Your task to perform on an android device: turn on the 12-hour format for clock Image 0: 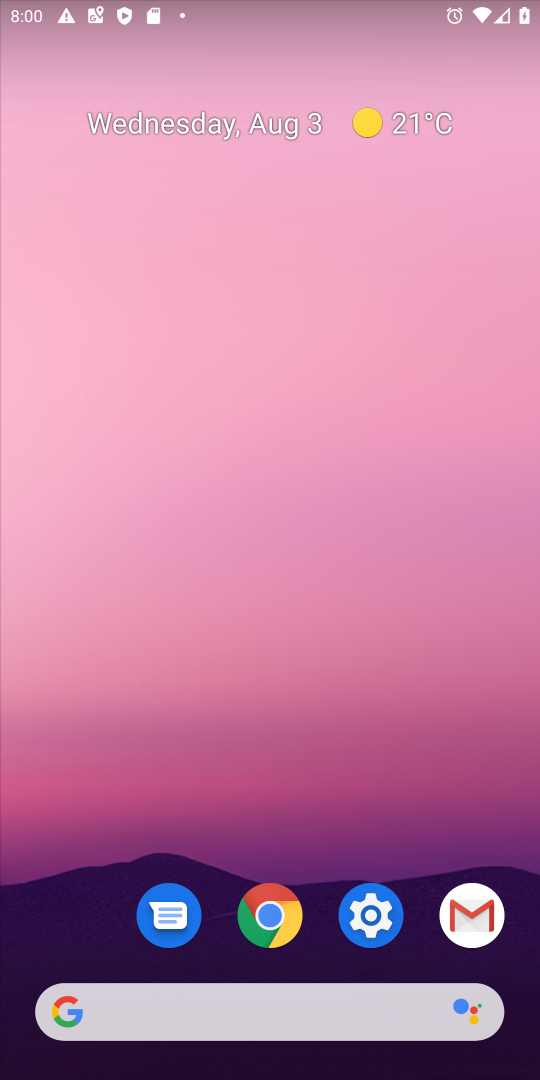
Step 0: drag from (375, 1064) to (167, 176)
Your task to perform on an android device: turn on the 12-hour format for clock Image 1: 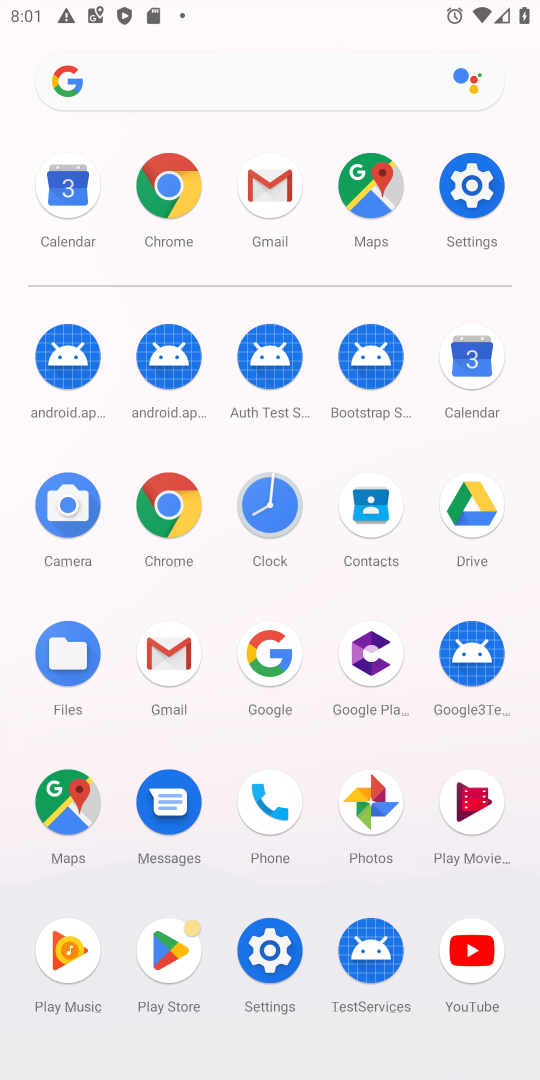
Step 1: click (296, 511)
Your task to perform on an android device: turn on the 12-hour format for clock Image 2: 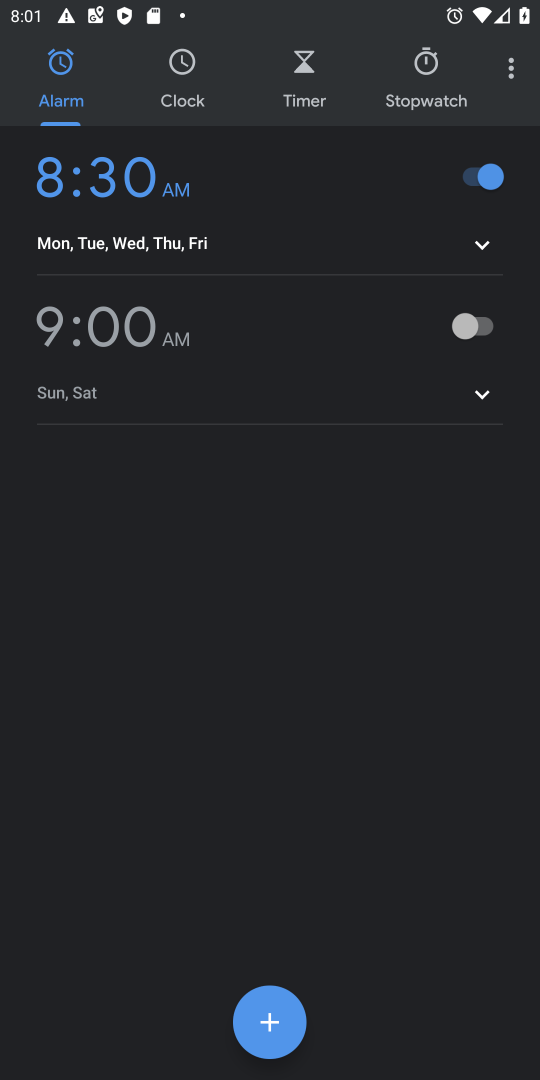
Step 2: click (505, 70)
Your task to perform on an android device: turn on the 12-hour format for clock Image 3: 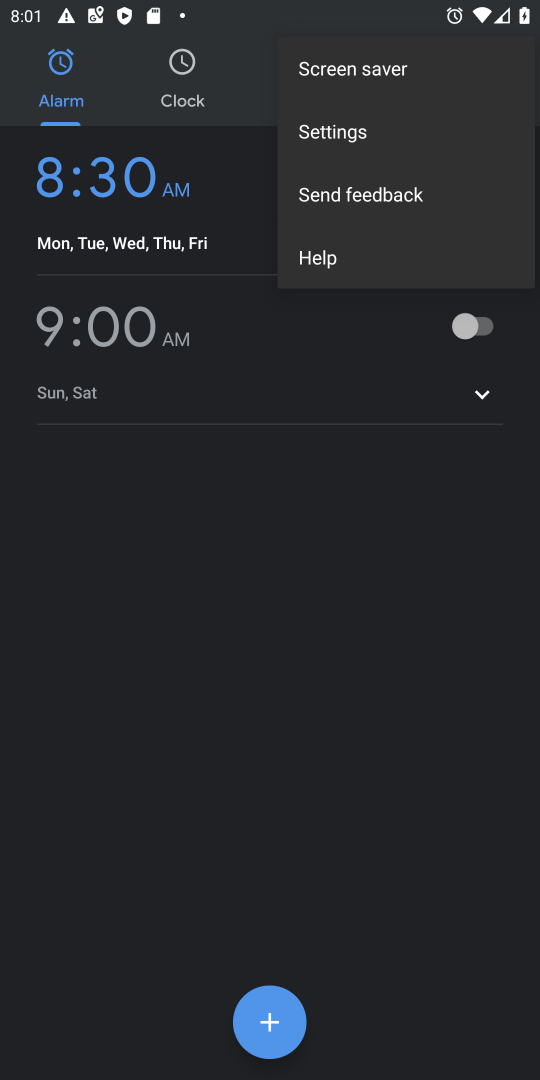
Step 3: click (352, 135)
Your task to perform on an android device: turn on the 12-hour format for clock Image 4: 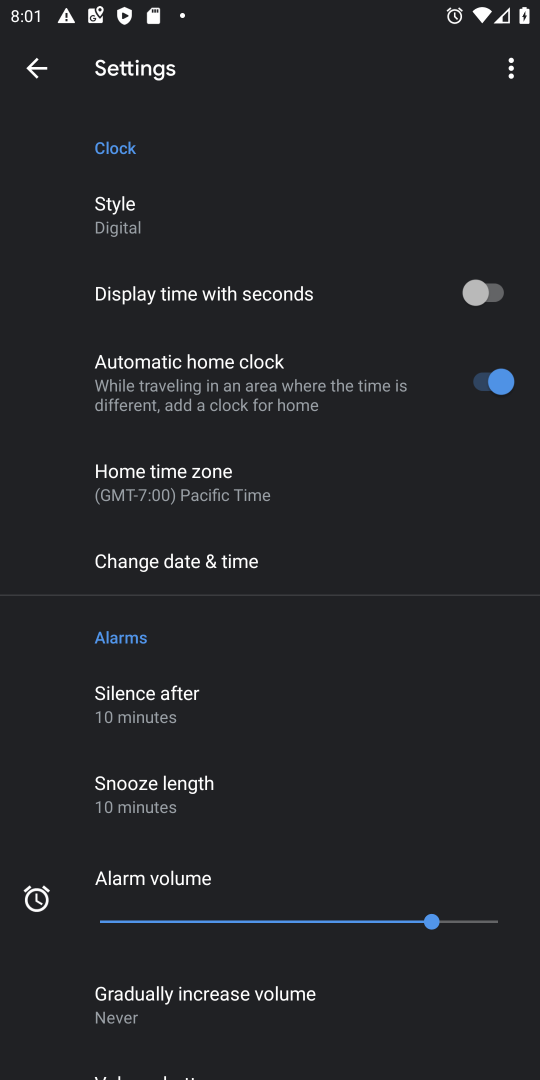
Step 4: click (162, 555)
Your task to perform on an android device: turn on the 12-hour format for clock Image 5: 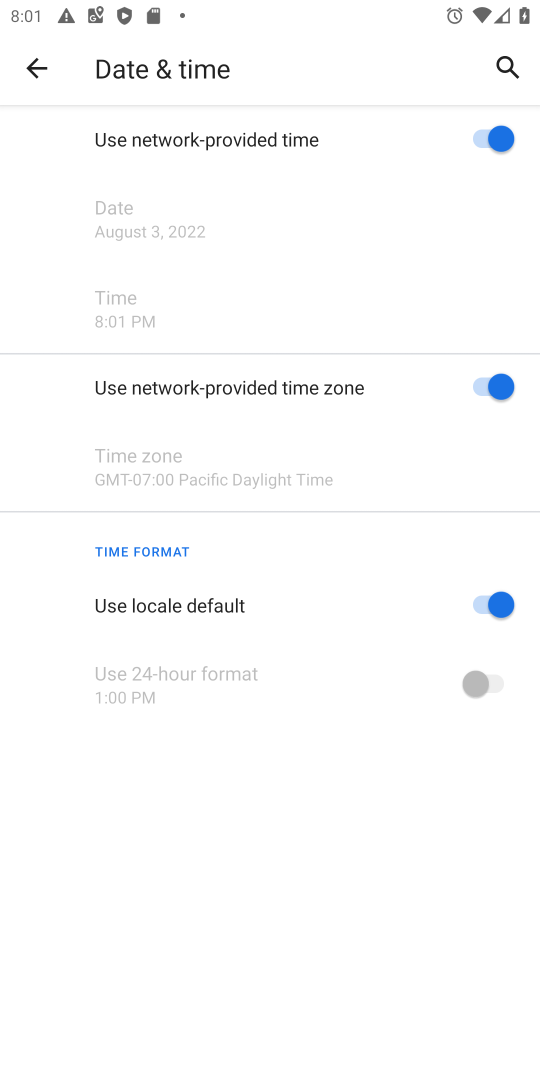
Step 5: click (496, 604)
Your task to perform on an android device: turn on the 12-hour format for clock Image 6: 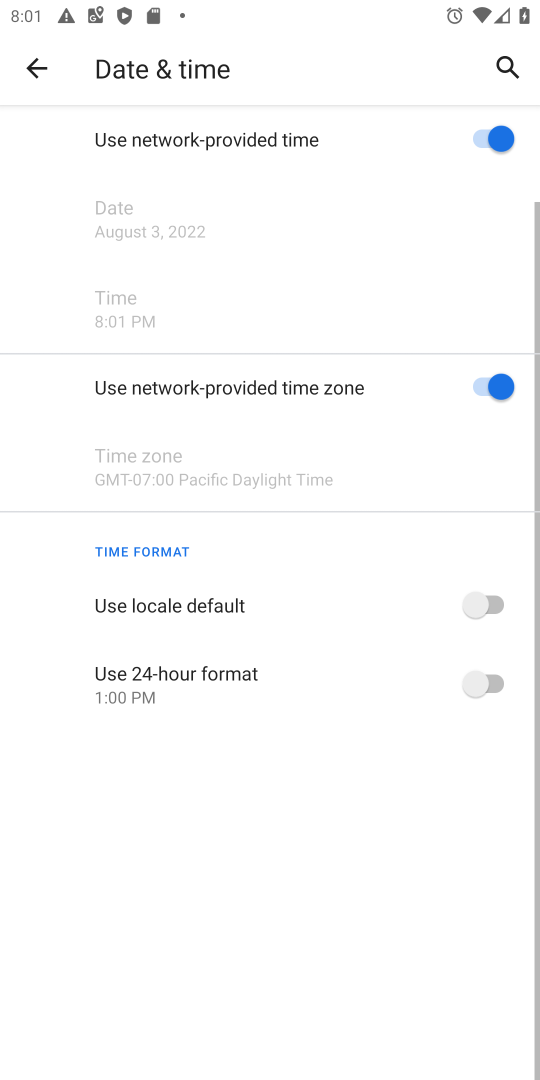
Step 6: click (490, 682)
Your task to perform on an android device: turn on the 12-hour format for clock Image 7: 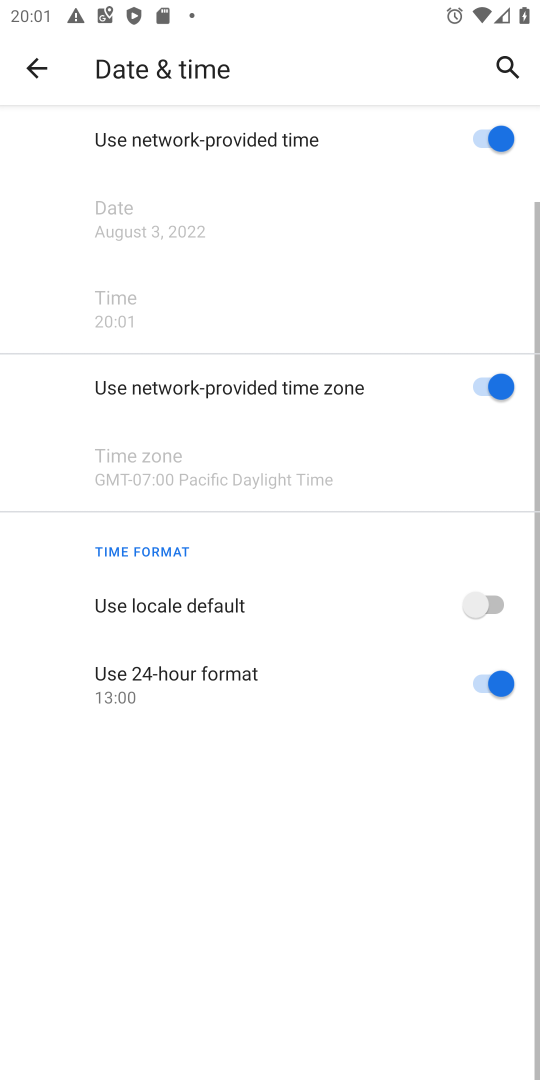
Step 7: click (491, 681)
Your task to perform on an android device: turn on the 12-hour format for clock Image 8: 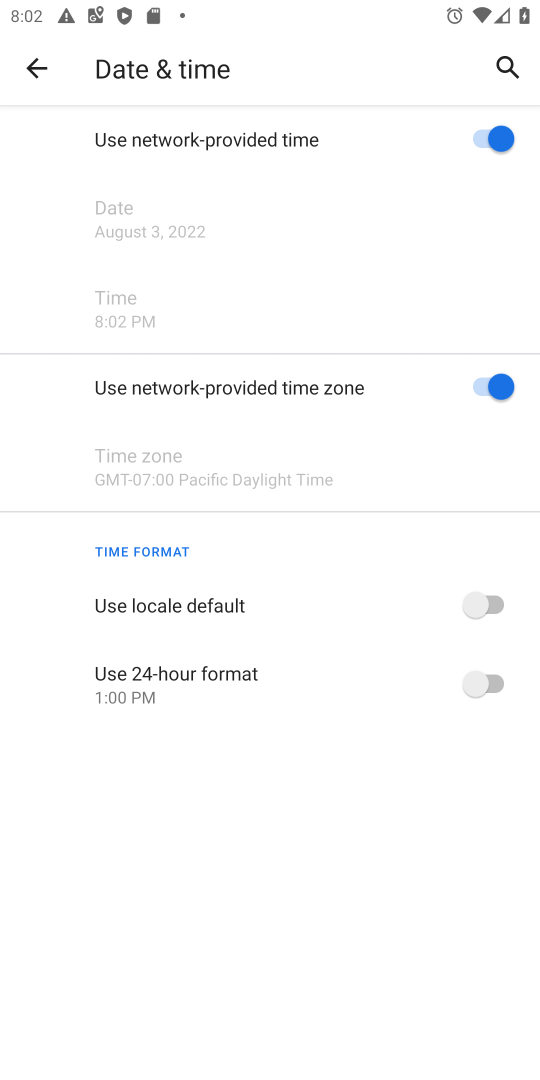
Step 8: task complete